Your task to perform on an android device: turn on javascript in the chrome app Image 0: 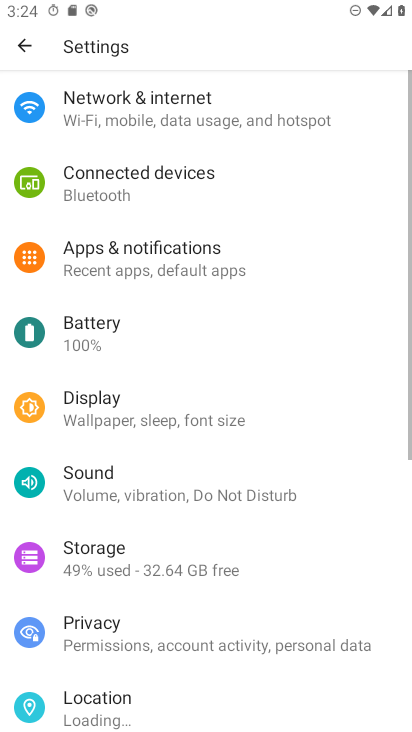
Step 0: drag from (235, 621) to (227, 20)
Your task to perform on an android device: turn on javascript in the chrome app Image 1: 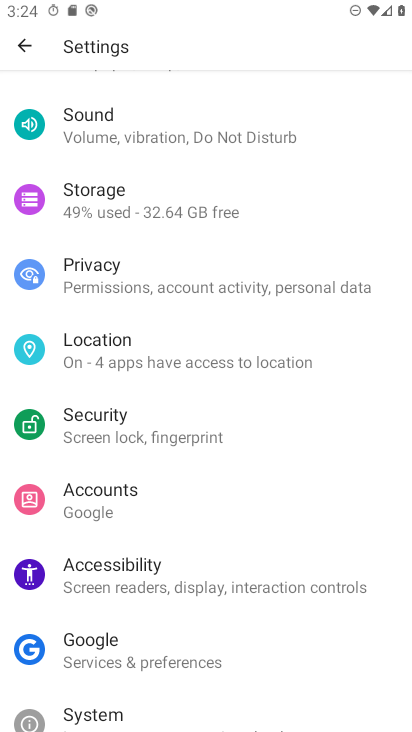
Step 1: press back button
Your task to perform on an android device: turn on javascript in the chrome app Image 2: 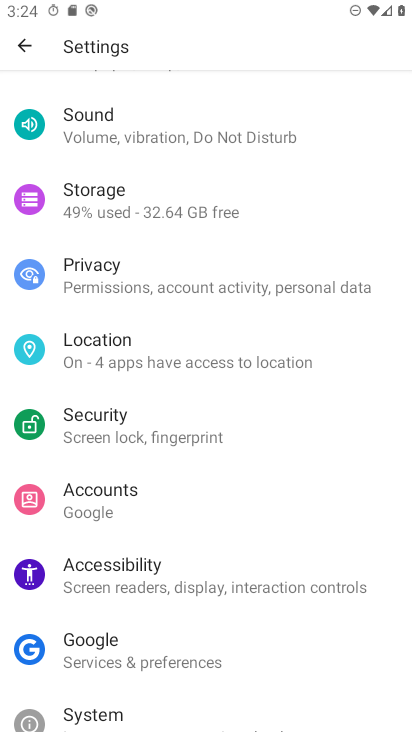
Step 2: press back button
Your task to perform on an android device: turn on javascript in the chrome app Image 3: 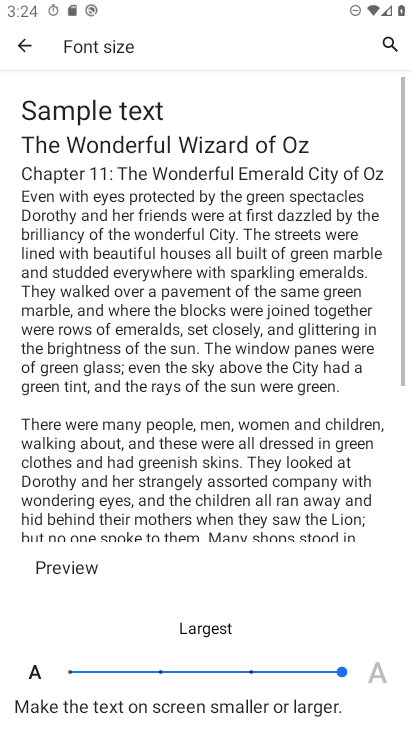
Step 3: press back button
Your task to perform on an android device: turn on javascript in the chrome app Image 4: 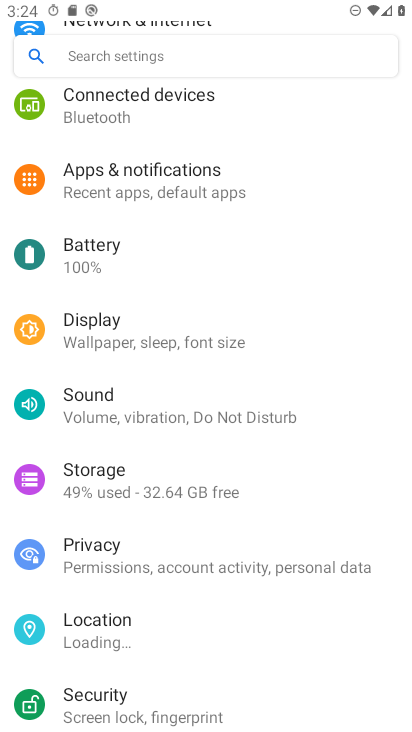
Step 4: press home button
Your task to perform on an android device: turn on javascript in the chrome app Image 5: 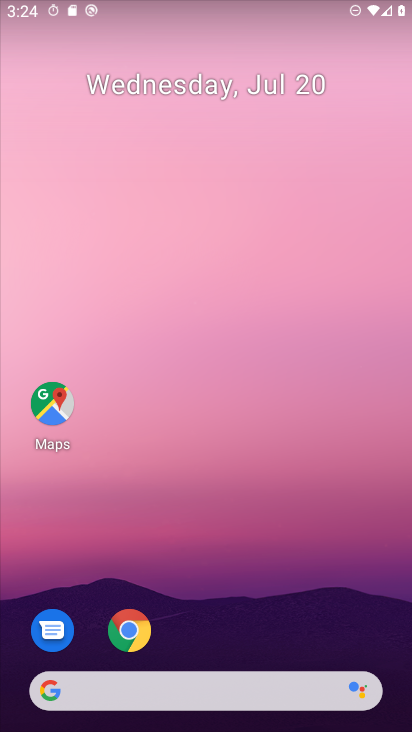
Step 5: drag from (200, 604) to (149, 327)
Your task to perform on an android device: turn on javascript in the chrome app Image 6: 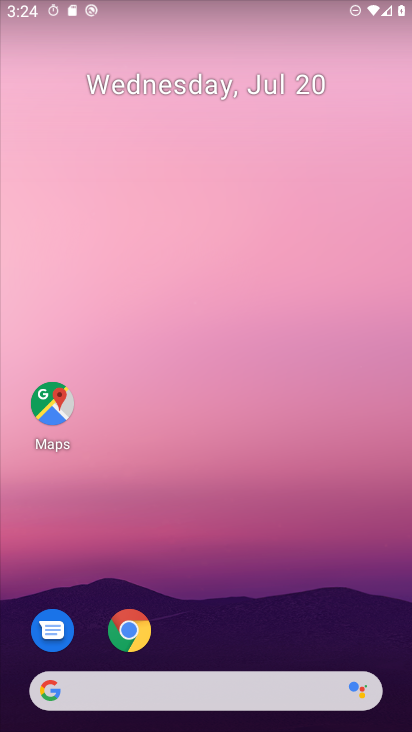
Step 6: drag from (197, 588) to (186, 290)
Your task to perform on an android device: turn on javascript in the chrome app Image 7: 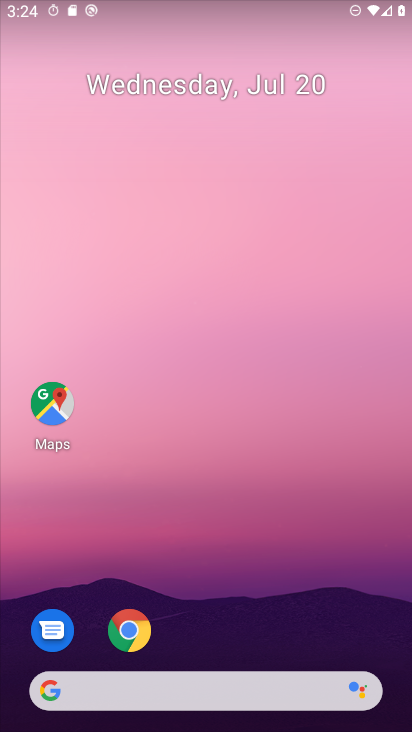
Step 7: drag from (203, 574) to (130, 230)
Your task to perform on an android device: turn on javascript in the chrome app Image 8: 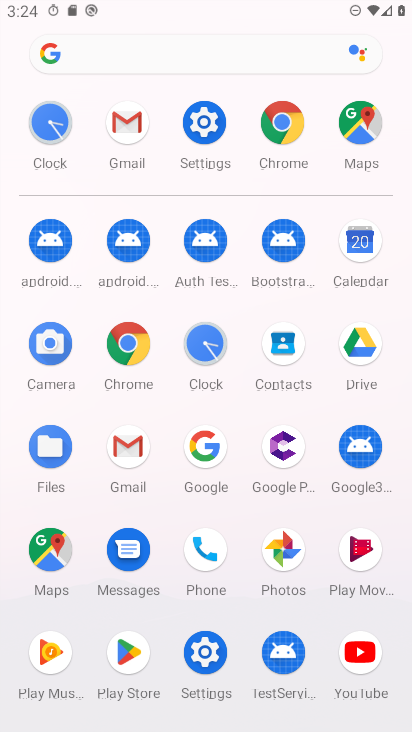
Step 8: click (275, 122)
Your task to perform on an android device: turn on javascript in the chrome app Image 9: 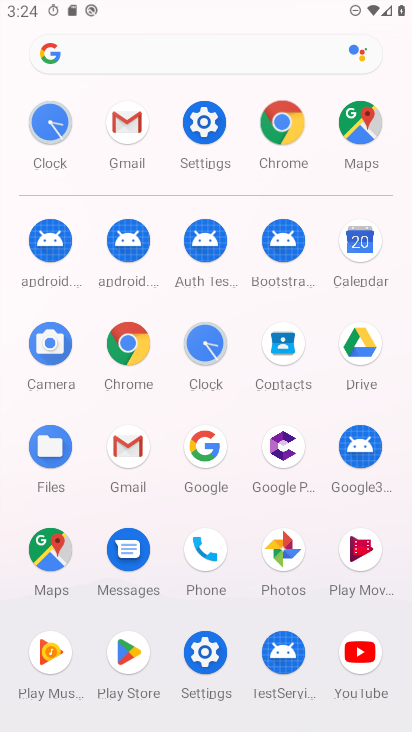
Step 9: click (275, 122)
Your task to perform on an android device: turn on javascript in the chrome app Image 10: 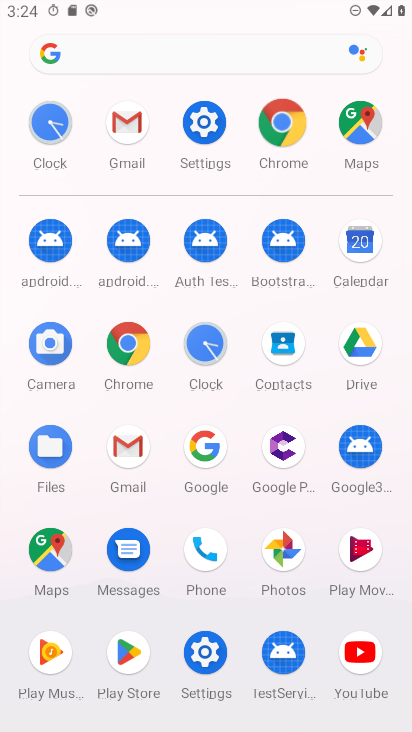
Step 10: click (275, 122)
Your task to perform on an android device: turn on javascript in the chrome app Image 11: 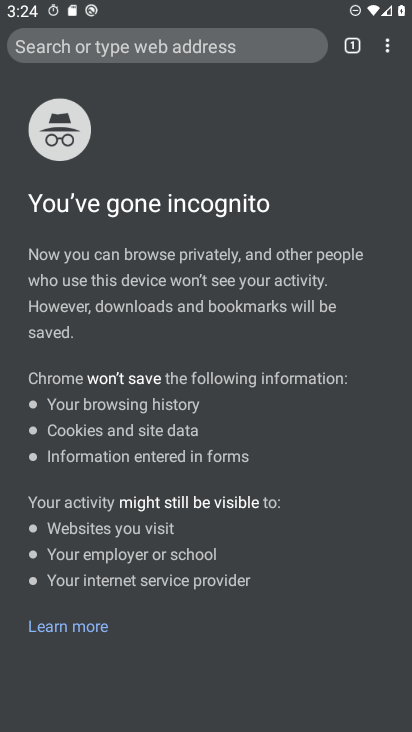
Step 11: drag from (379, 44) to (225, 347)
Your task to perform on an android device: turn on javascript in the chrome app Image 12: 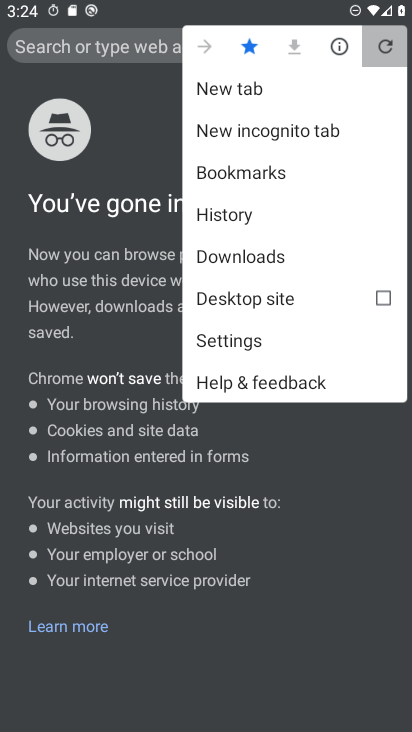
Step 12: click (221, 344)
Your task to perform on an android device: turn on javascript in the chrome app Image 13: 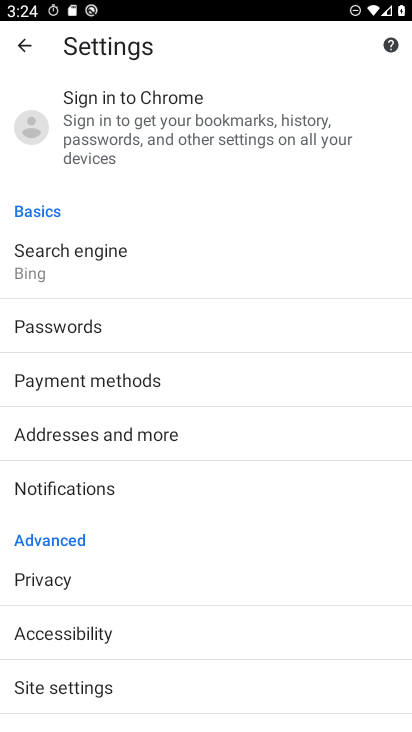
Step 13: drag from (76, 564) to (17, 227)
Your task to perform on an android device: turn on javascript in the chrome app Image 14: 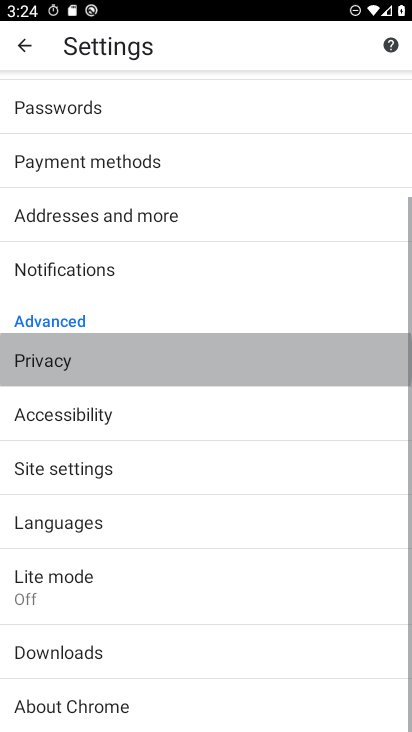
Step 14: drag from (32, 495) to (45, 295)
Your task to perform on an android device: turn on javascript in the chrome app Image 15: 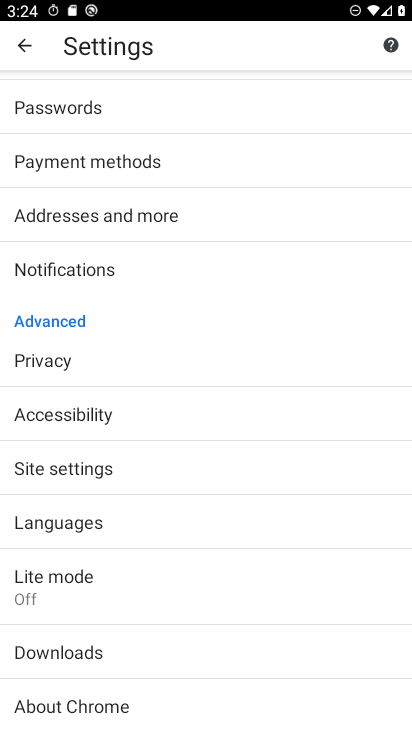
Step 15: drag from (76, 414) to (104, 118)
Your task to perform on an android device: turn on javascript in the chrome app Image 16: 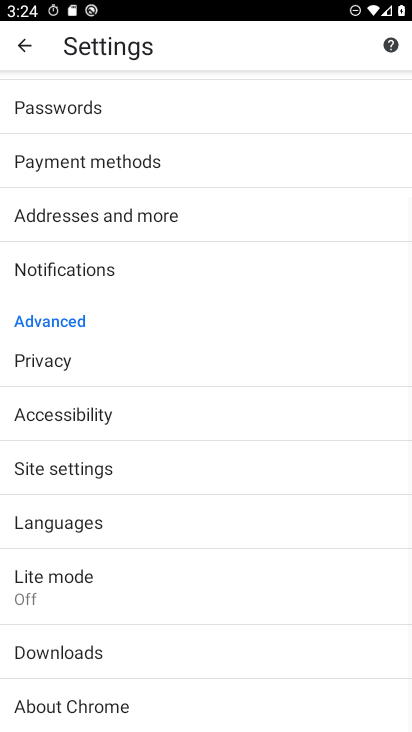
Step 16: drag from (92, 650) to (99, 339)
Your task to perform on an android device: turn on javascript in the chrome app Image 17: 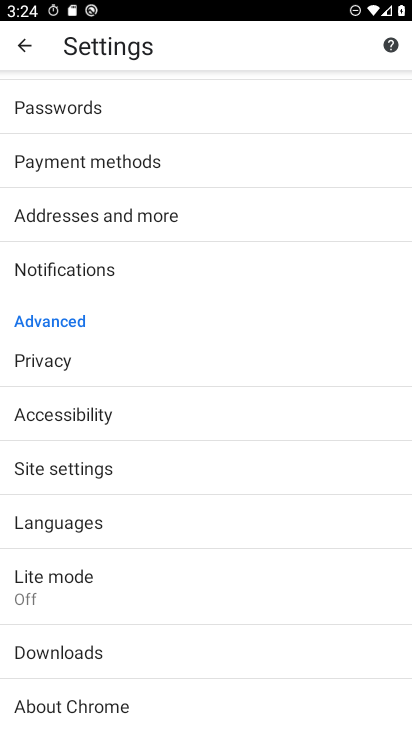
Step 17: click (53, 467)
Your task to perform on an android device: turn on javascript in the chrome app Image 18: 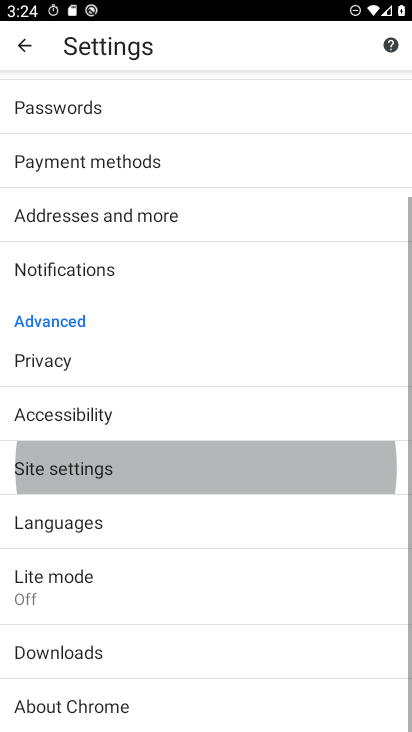
Step 18: click (52, 466)
Your task to perform on an android device: turn on javascript in the chrome app Image 19: 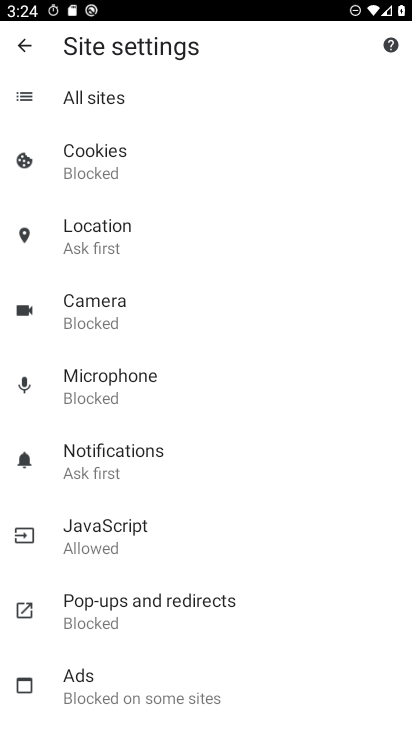
Step 19: click (98, 539)
Your task to perform on an android device: turn on javascript in the chrome app Image 20: 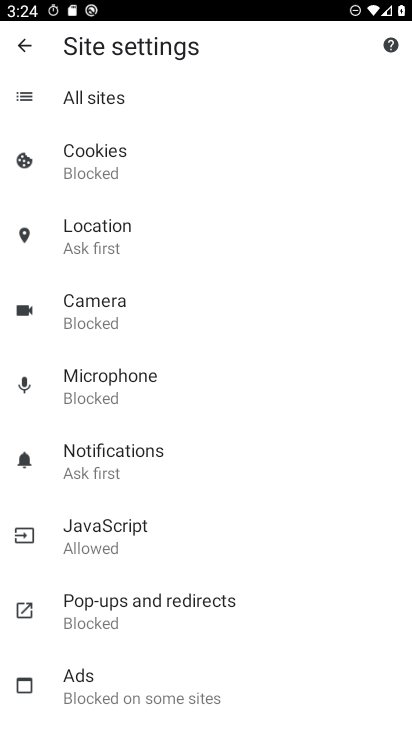
Step 20: click (99, 526)
Your task to perform on an android device: turn on javascript in the chrome app Image 21: 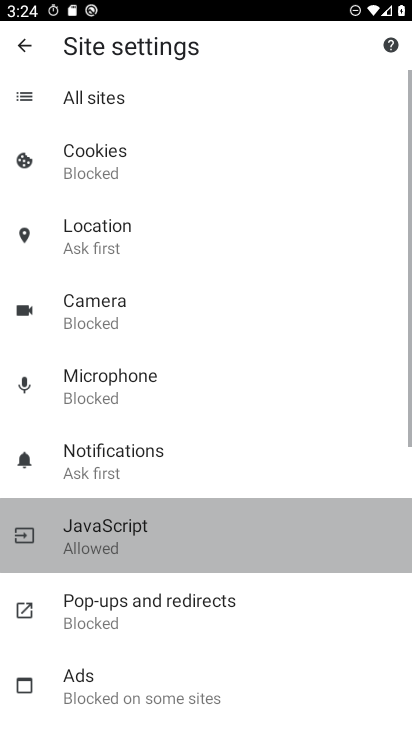
Step 21: click (102, 524)
Your task to perform on an android device: turn on javascript in the chrome app Image 22: 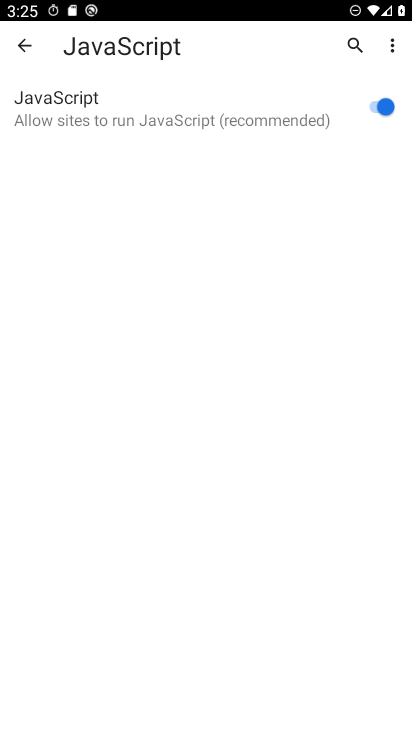
Step 22: task complete